Your task to perform on an android device: toggle priority inbox in the gmail app Image 0: 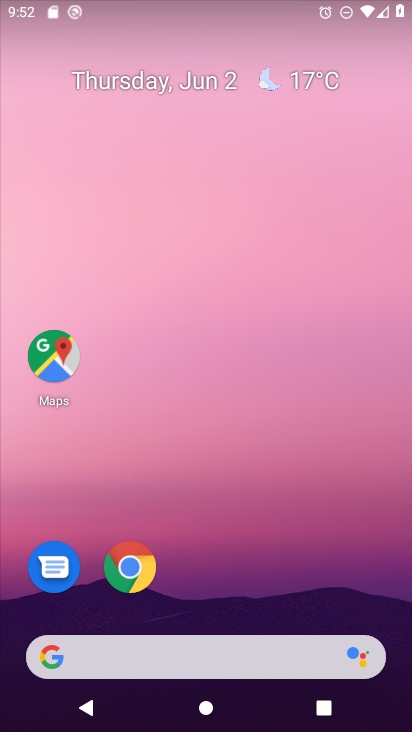
Step 0: drag from (228, 592) to (283, 0)
Your task to perform on an android device: toggle priority inbox in the gmail app Image 1: 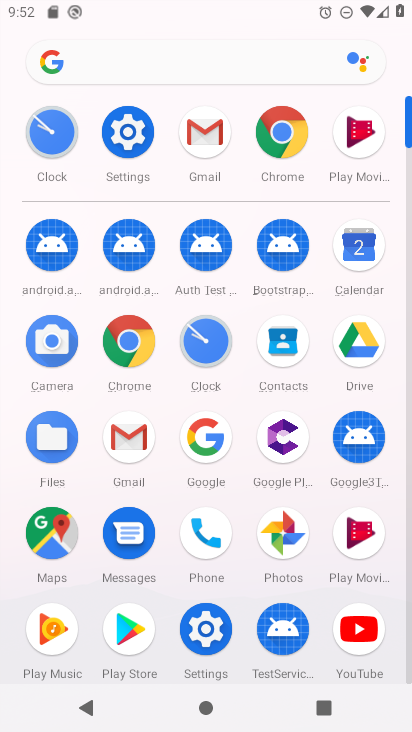
Step 1: click (123, 168)
Your task to perform on an android device: toggle priority inbox in the gmail app Image 2: 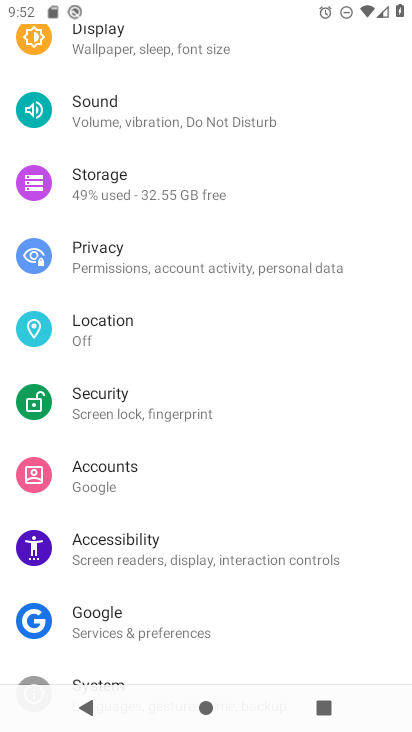
Step 2: press home button
Your task to perform on an android device: toggle priority inbox in the gmail app Image 3: 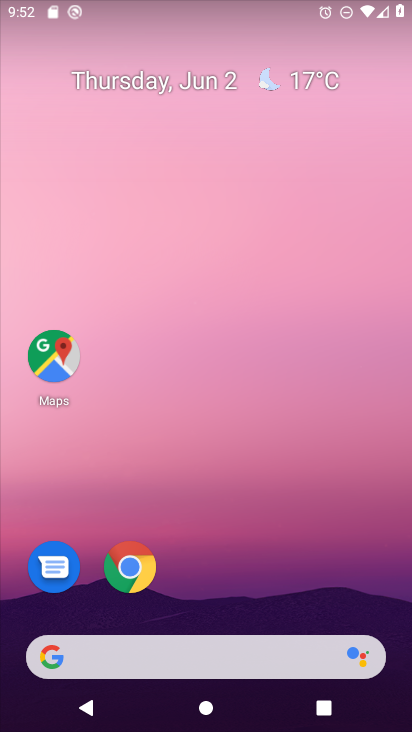
Step 3: drag from (193, 562) to (261, 5)
Your task to perform on an android device: toggle priority inbox in the gmail app Image 4: 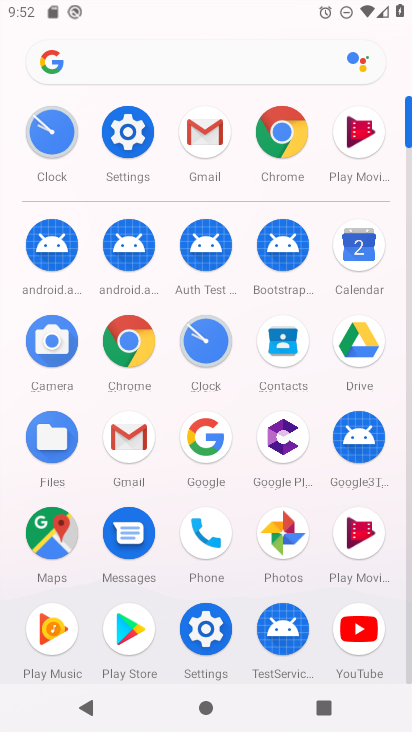
Step 4: click (139, 450)
Your task to perform on an android device: toggle priority inbox in the gmail app Image 5: 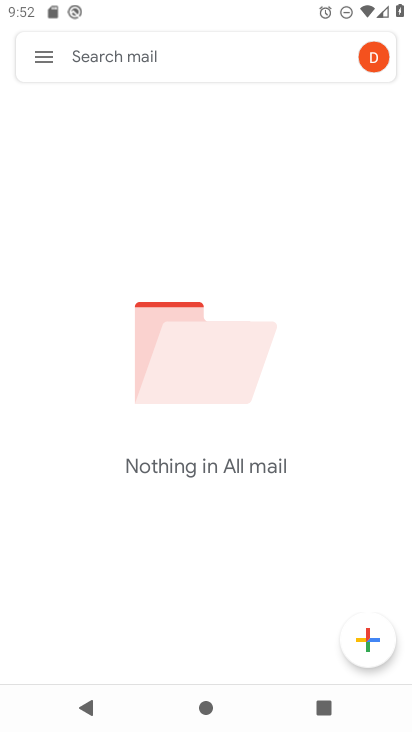
Step 5: click (43, 51)
Your task to perform on an android device: toggle priority inbox in the gmail app Image 6: 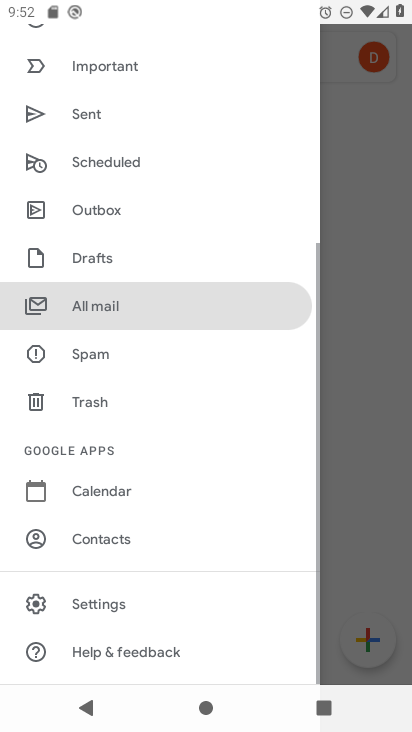
Step 6: drag from (131, 592) to (158, 351)
Your task to perform on an android device: toggle priority inbox in the gmail app Image 7: 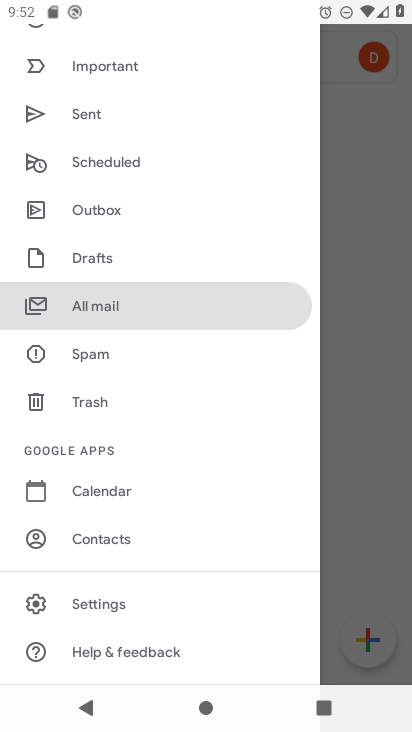
Step 7: click (117, 612)
Your task to perform on an android device: toggle priority inbox in the gmail app Image 8: 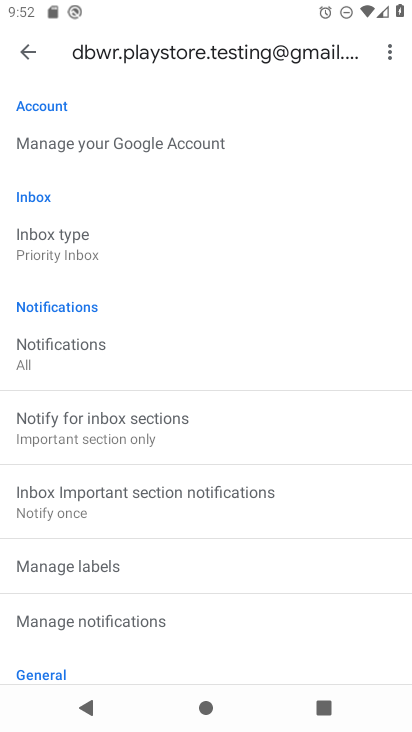
Step 8: click (88, 250)
Your task to perform on an android device: toggle priority inbox in the gmail app Image 9: 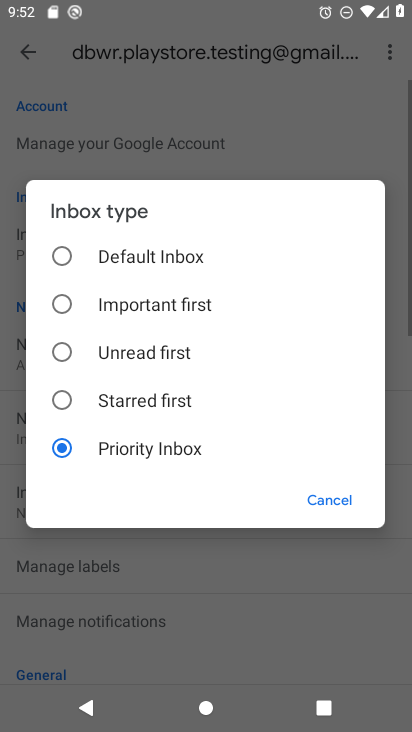
Step 9: click (149, 260)
Your task to perform on an android device: toggle priority inbox in the gmail app Image 10: 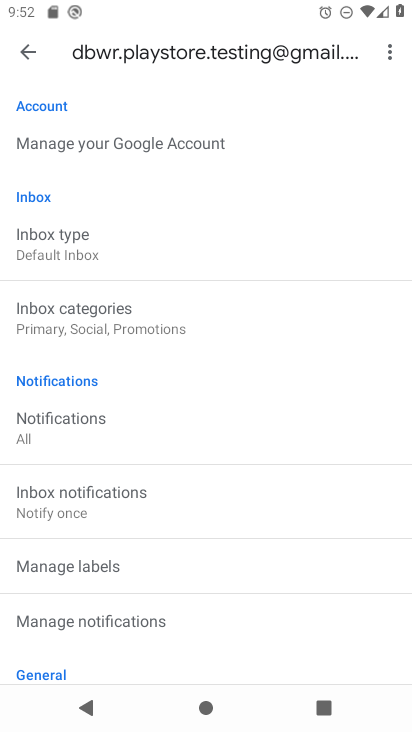
Step 10: task complete